Your task to perform on an android device: turn off notifications settings in the gmail app Image 0: 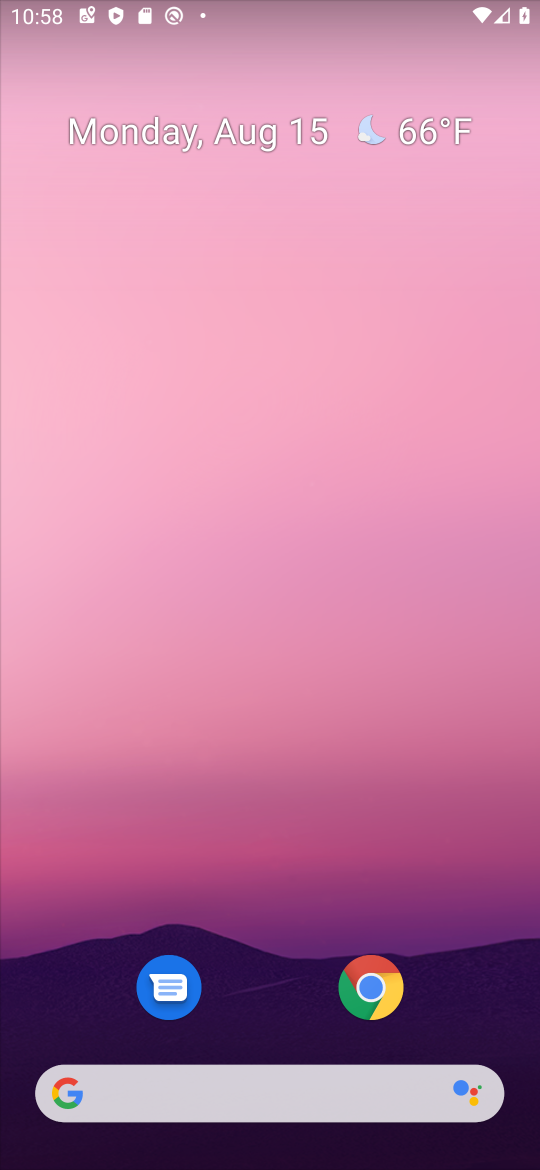
Step 0: drag from (277, 1043) to (247, 37)
Your task to perform on an android device: turn off notifications settings in the gmail app Image 1: 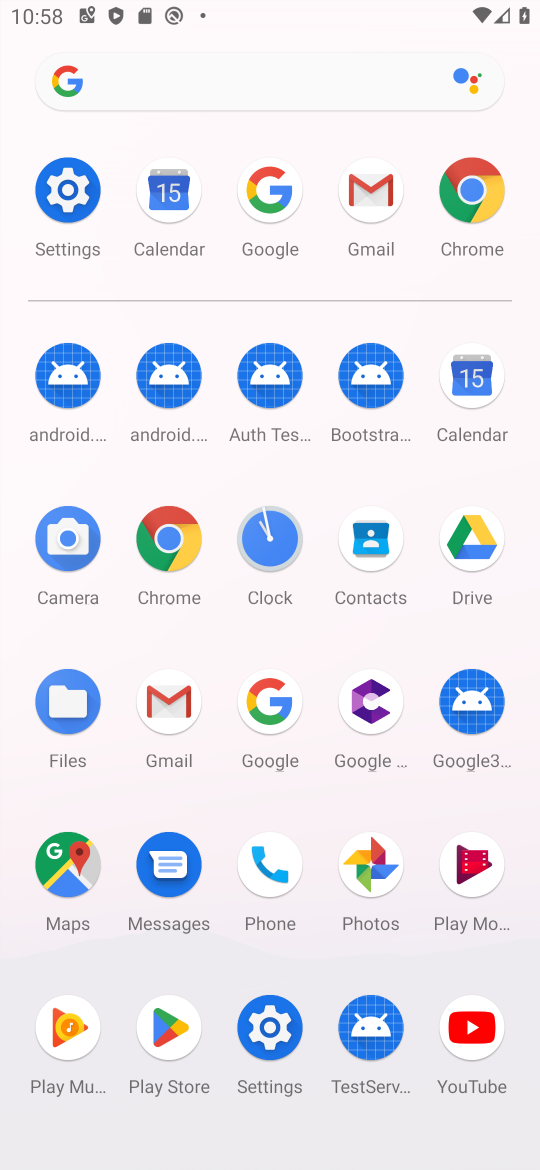
Step 1: click (162, 711)
Your task to perform on an android device: turn off notifications settings in the gmail app Image 2: 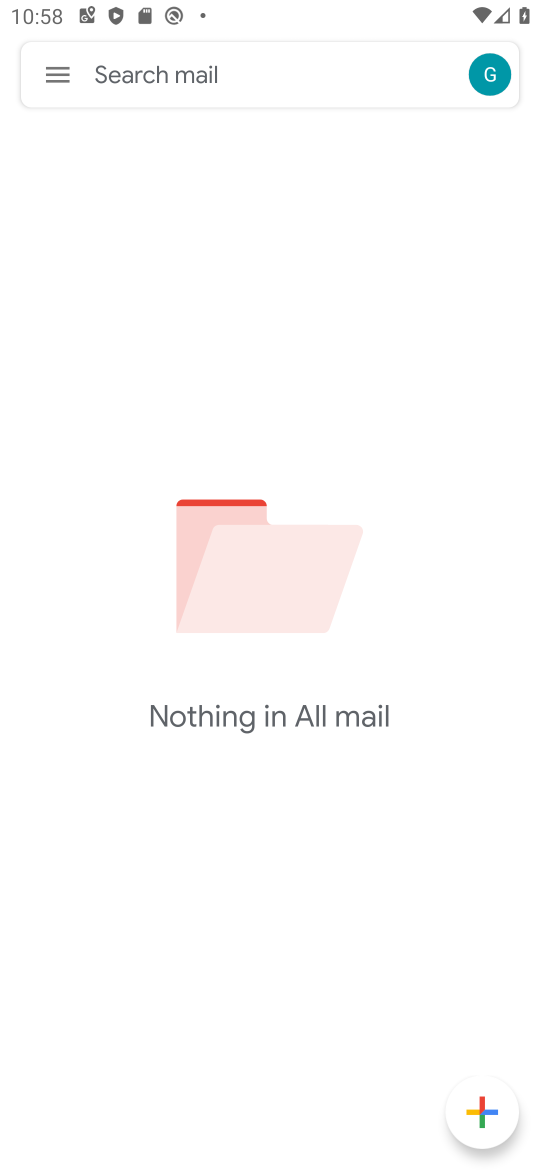
Step 2: click (51, 70)
Your task to perform on an android device: turn off notifications settings in the gmail app Image 3: 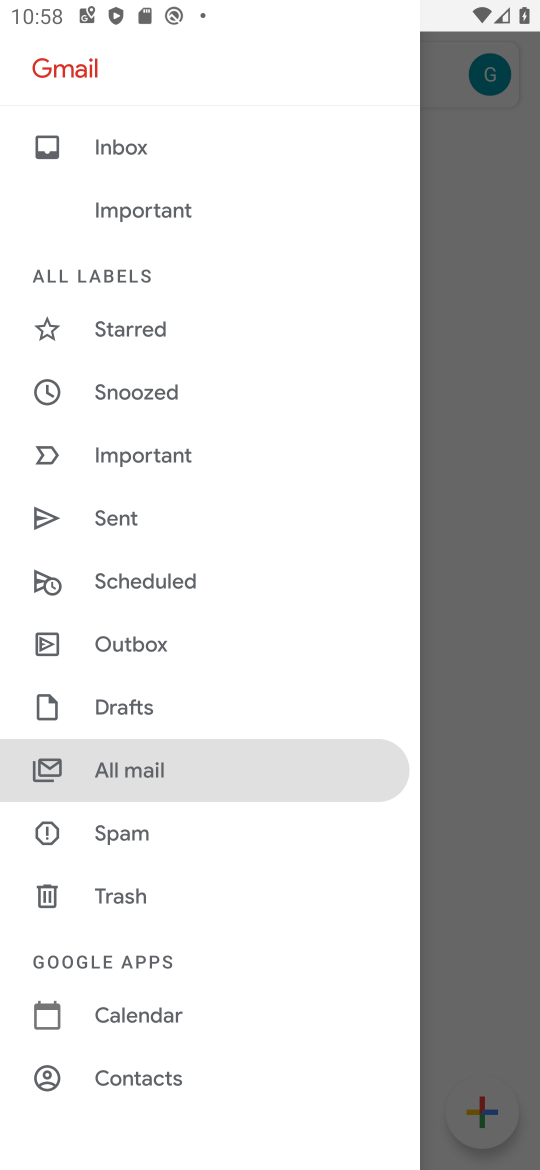
Step 3: drag from (230, 1003) to (231, 161)
Your task to perform on an android device: turn off notifications settings in the gmail app Image 4: 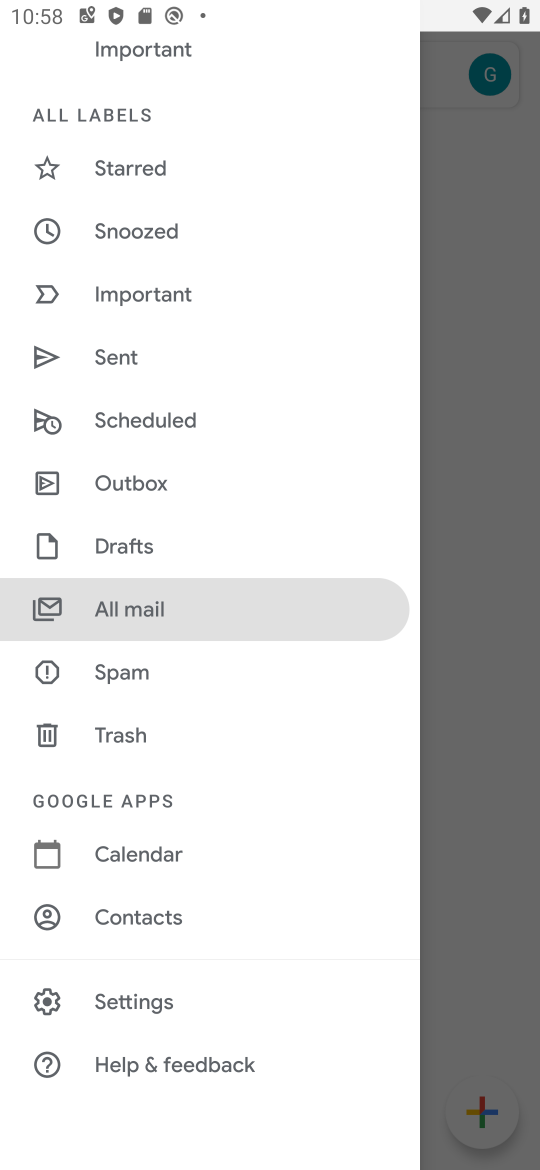
Step 4: click (101, 1007)
Your task to perform on an android device: turn off notifications settings in the gmail app Image 5: 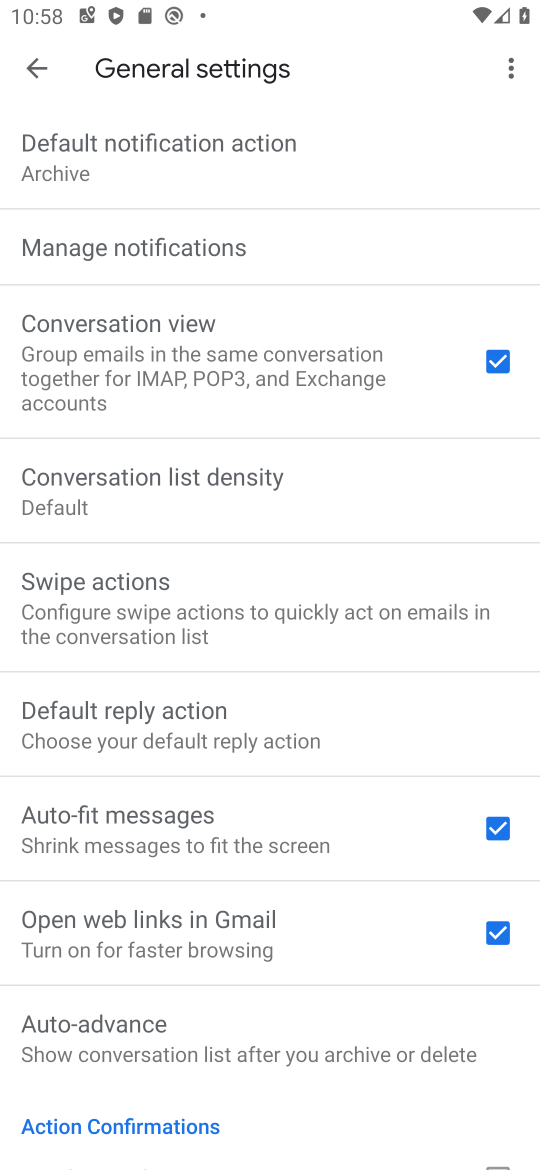
Step 5: click (165, 230)
Your task to perform on an android device: turn off notifications settings in the gmail app Image 6: 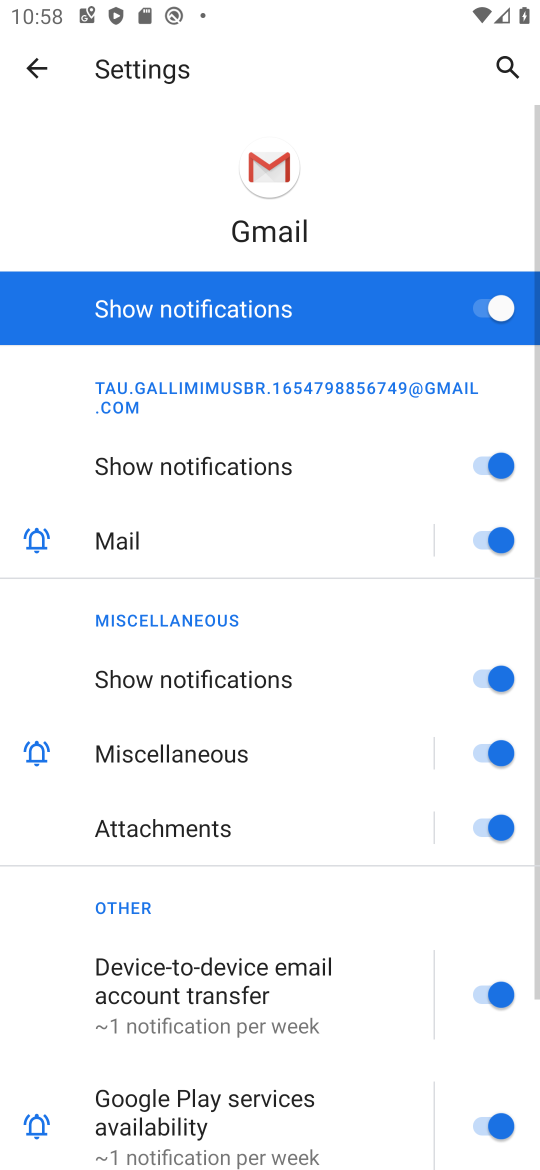
Step 6: click (498, 302)
Your task to perform on an android device: turn off notifications settings in the gmail app Image 7: 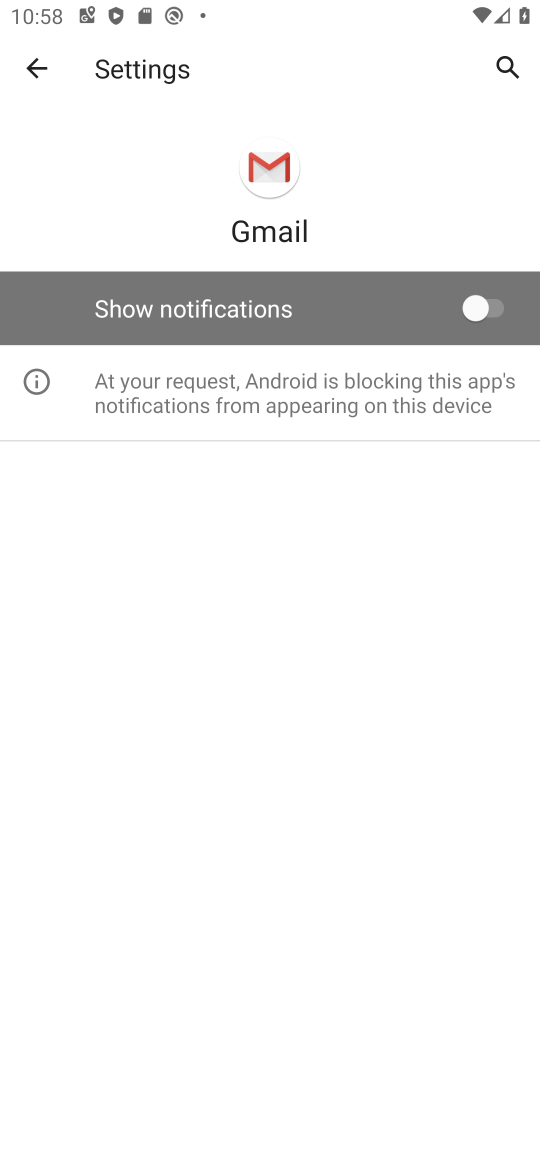
Step 7: task complete